Your task to perform on an android device: Search for sushi restaurants on Maps Image 0: 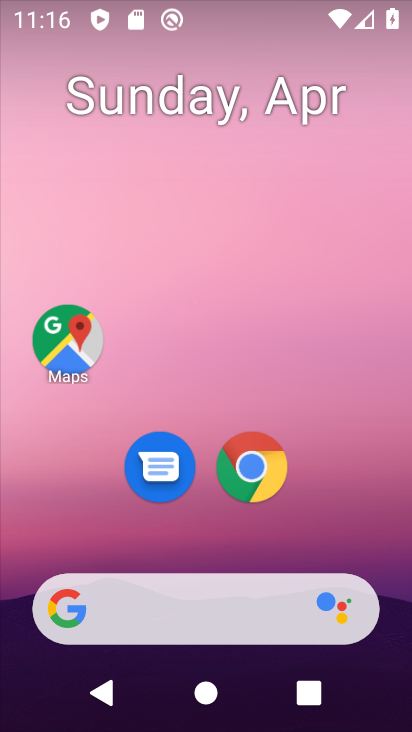
Step 0: drag from (206, 548) to (207, 286)
Your task to perform on an android device: Search for sushi restaurants on Maps Image 1: 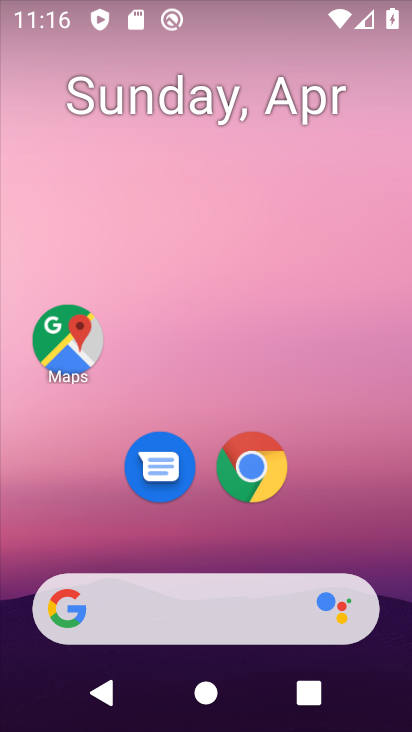
Step 1: drag from (205, 533) to (271, 198)
Your task to perform on an android device: Search for sushi restaurants on Maps Image 2: 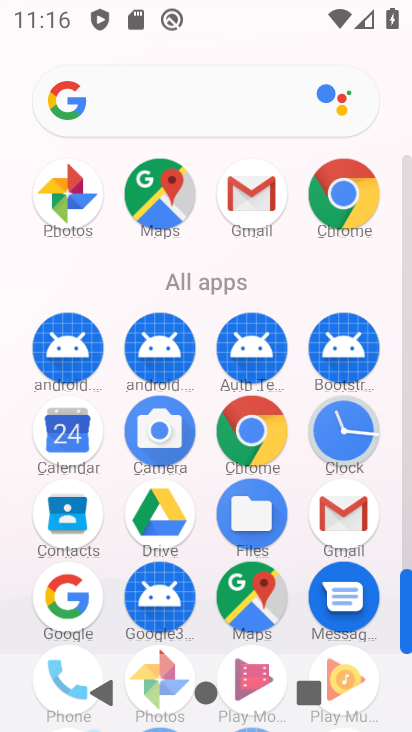
Step 2: click (252, 592)
Your task to perform on an android device: Search for sushi restaurants on Maps Image 3: 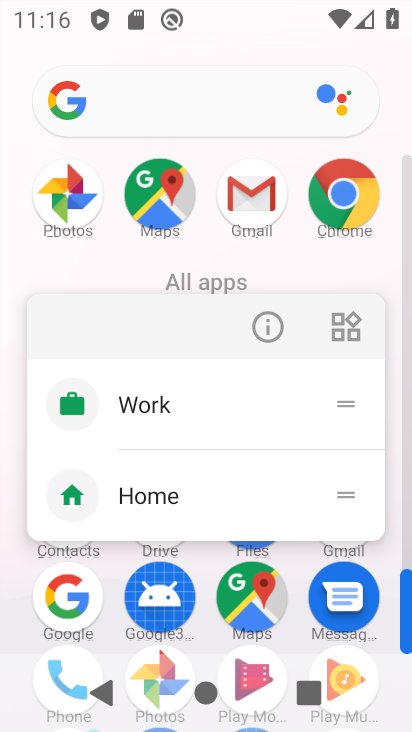
Step 3: click (271, 316)
Your task to perform on an android device: Search for sushi restaurants on Maps Image 4: 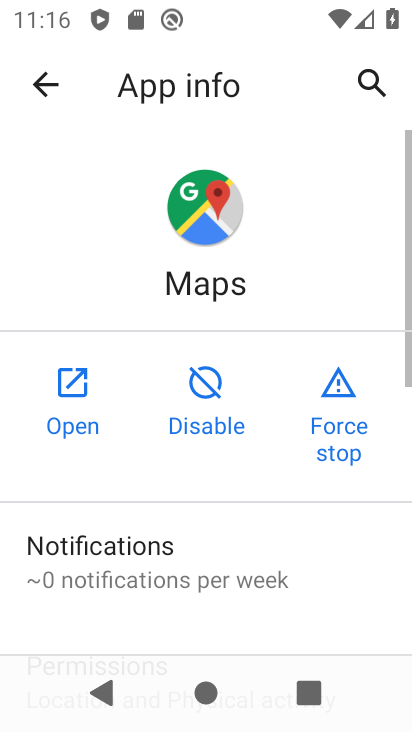
Step 4: click (96, 381)
Your task to perform on an android device: Search for sushi restaurants on Maps Image 5: 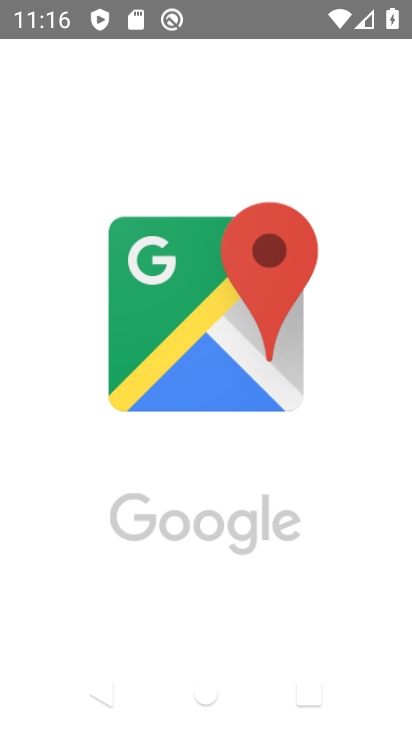
Step 5: drag from (238, 538) to (242, 139)
Your task to perform on an android device: Search for sushi restaurants on Maps Image 6: 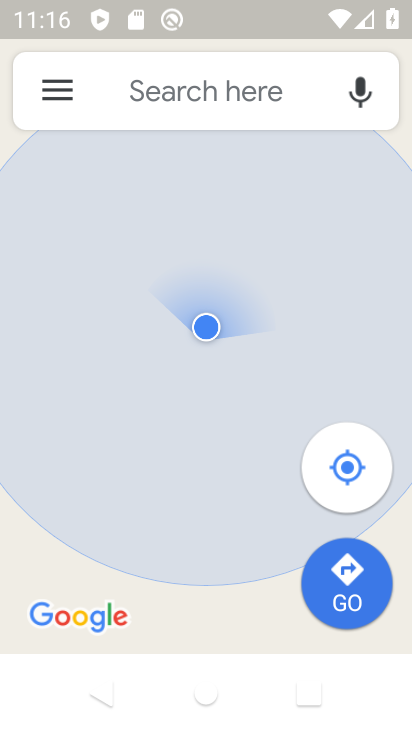
Step 6: drag from (230, 536) to (265, 174)
Your task to perform on an android device: Search for sushi restaurants on Maps Image 7: 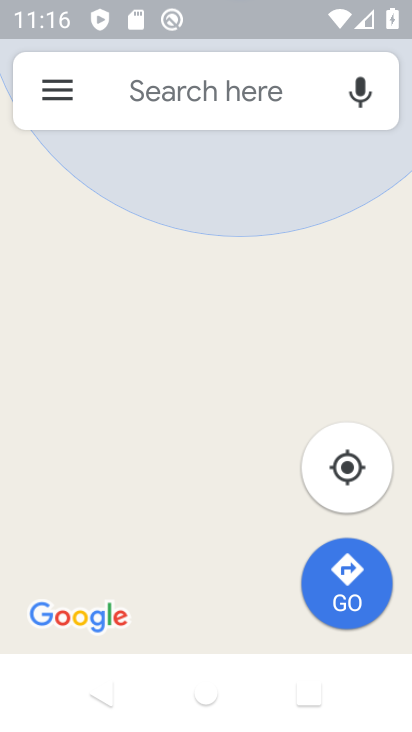
Step 7: click (180, 102)
Your task to perform on an android device: Search for sushi restaurants on Maps Image 8: 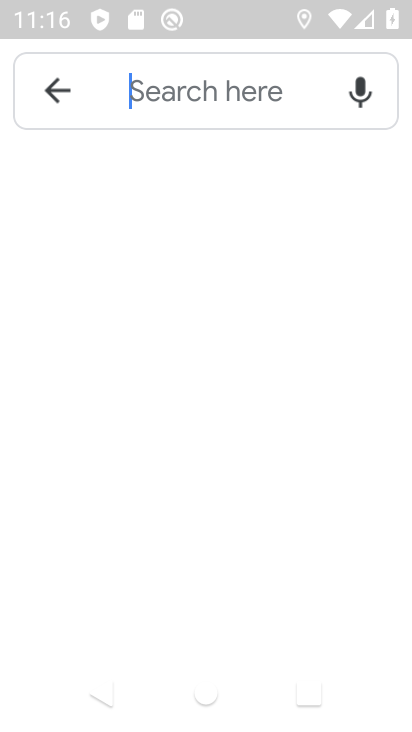
Step 8: click (158, 101)
Your task to perform on an android device: Search for sushi restaurants on Maps Image 9: 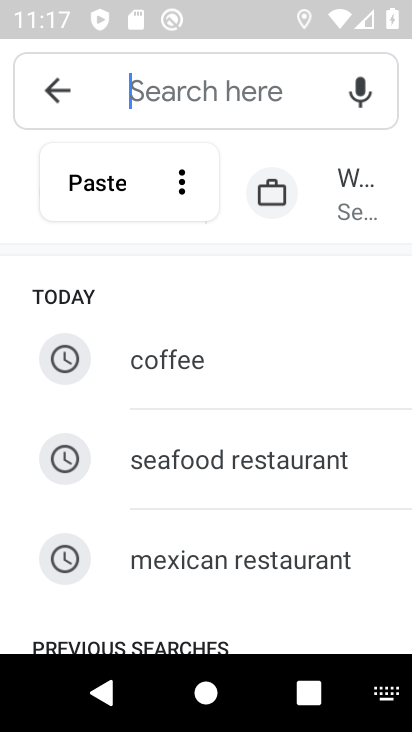
Step 9: type "sushi "
Your task to perform on an android device: Search for sushi restaurants on Maps Image 10: 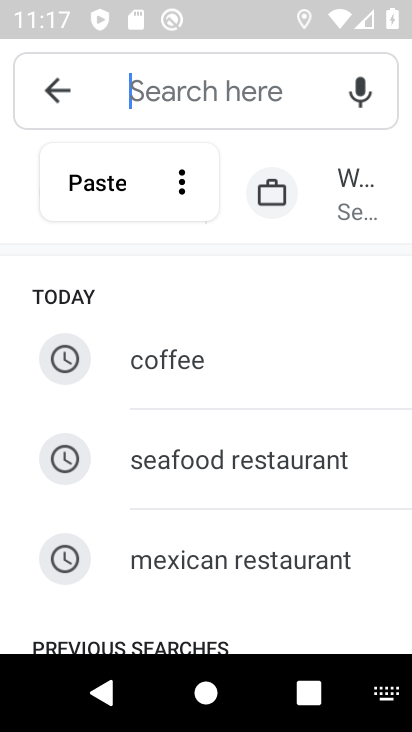
Step 10: click (280, 282)
Your task to perform on an android device: Search for sushi restaurants on Maps Image 11: 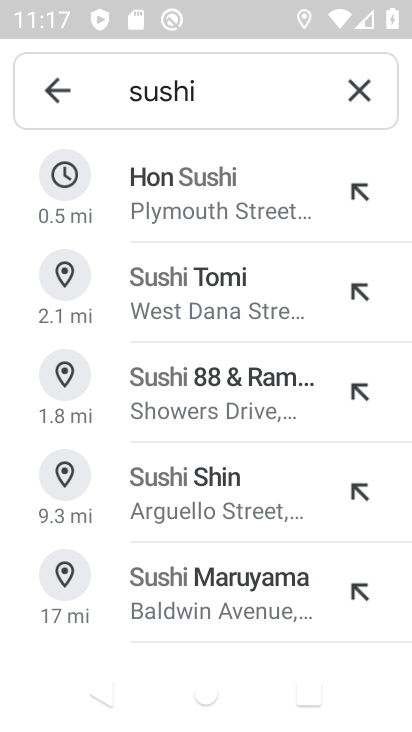
Step 11: click (210, 92)
Your task to perform on an android device: Search for sushi restaurants on Maps Image 12: 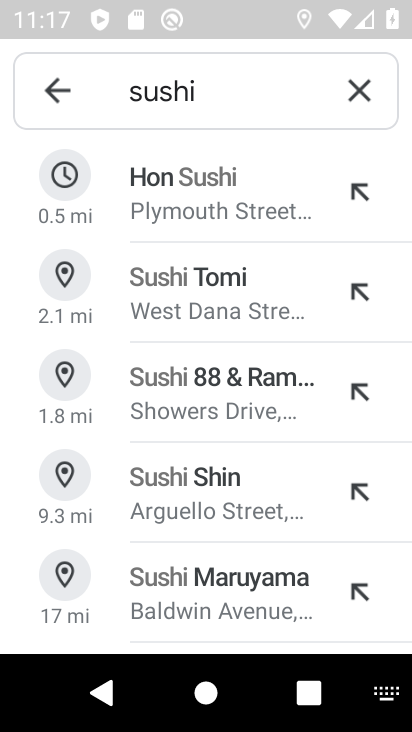
Step 12: type "restaurants"
Your task to perform on an android device: Search for sushi restaurants on Maps Image 13: 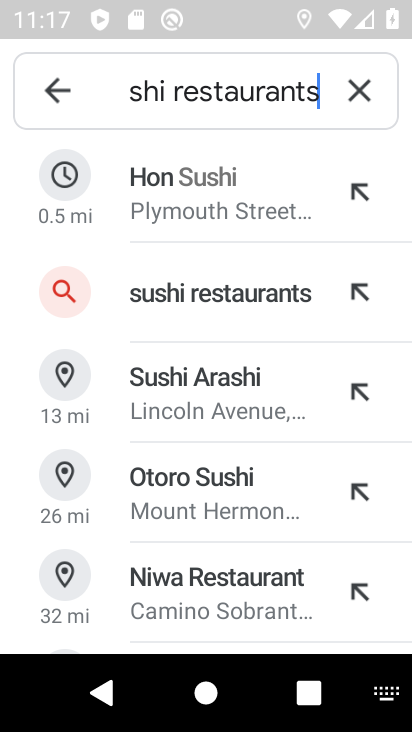
Step 13: click (355, 97)
Your task to perform on an android device: Search for sushi restaurants on Maps Image 14: 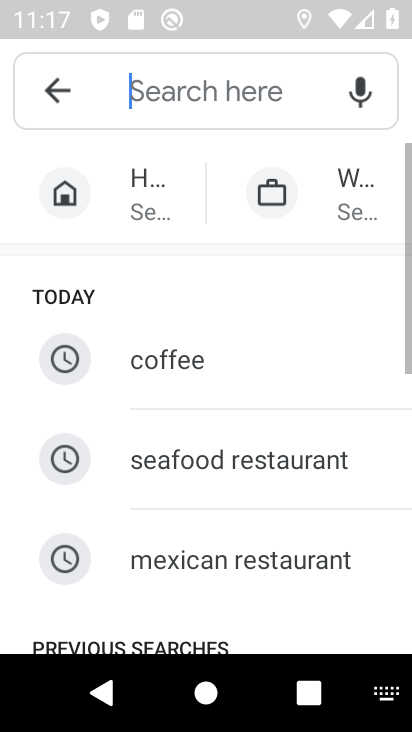
Step 14: click (208, 105)
Your task to perform on an android device: Search for sushi restaurants on Maps Image 15: 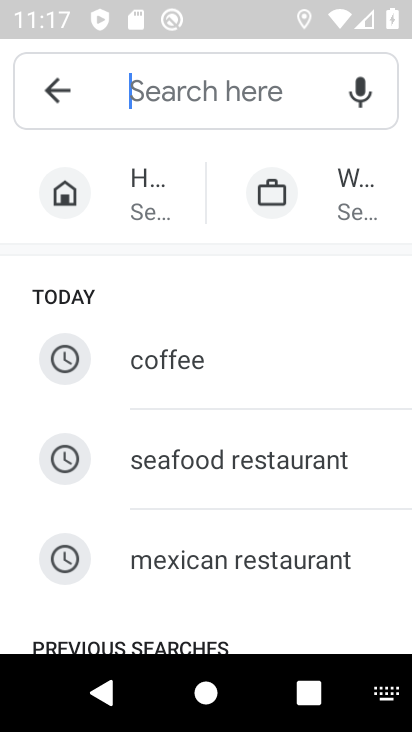
Step 15: type "sushi"
Your task to perform on an android device: Search for sushi restaurants on Maps Image 16: 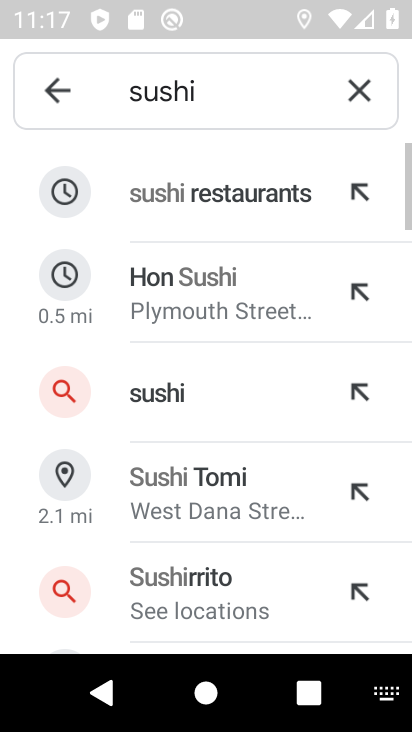
Step 16: click (189, 208)
Your task to perform on an android device: Search for sushi restaurants on Maps Image 17: 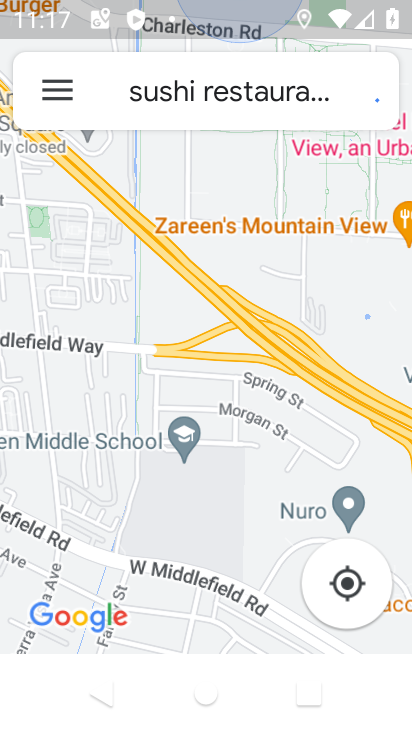
Step 17: task complete